Your task to perform on an android device: Show me popular videos on Youtube Image 0: 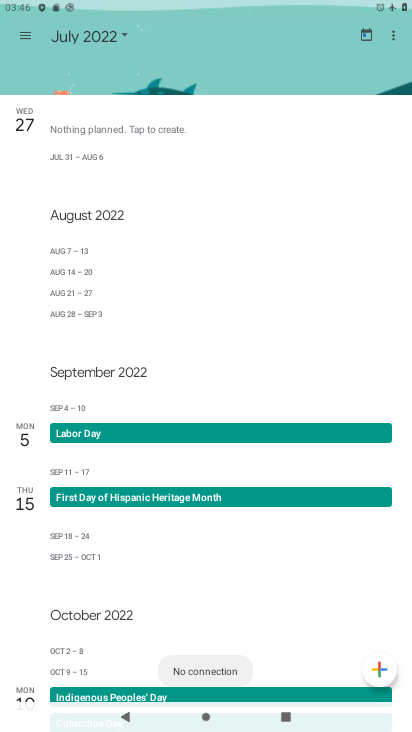
Step 0: drag from (244, 580) to (291, 246)
Your task to perform on an android device: Show me popular videos on Youtube Image 1: 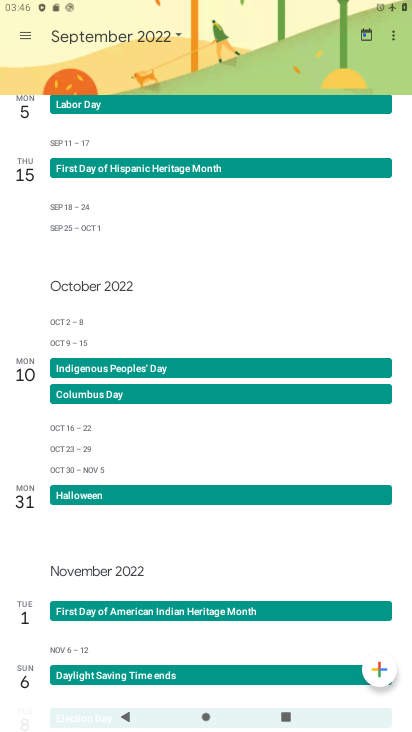
Step 1: press home button
Your task to perform on an android device: Show me popular videos on Youtube Image 2: 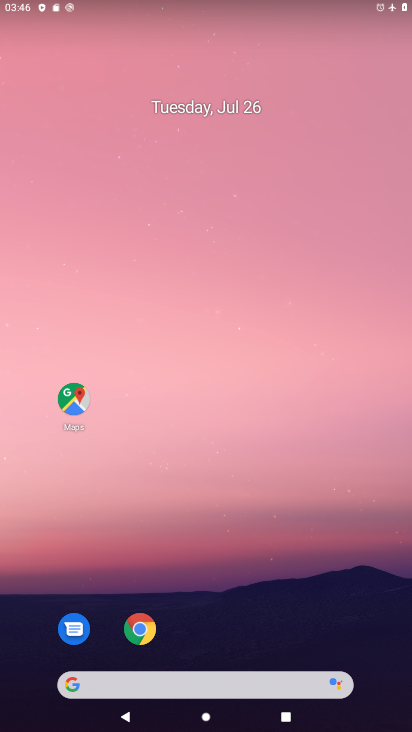
Step 2: drag from (265, 621) to (335, 178)
Your task to perform on an android device: Show me popular videos on Youtube Image 3: 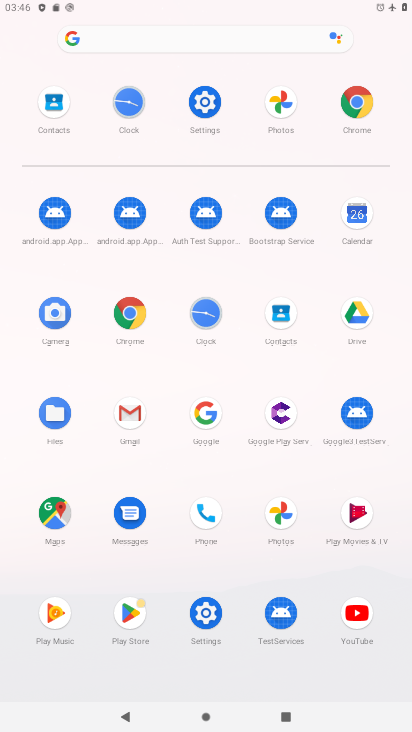
Step 3: click (353, 616)
Your task to perform on an android device: Show me popular videos on Youtube Image 4: 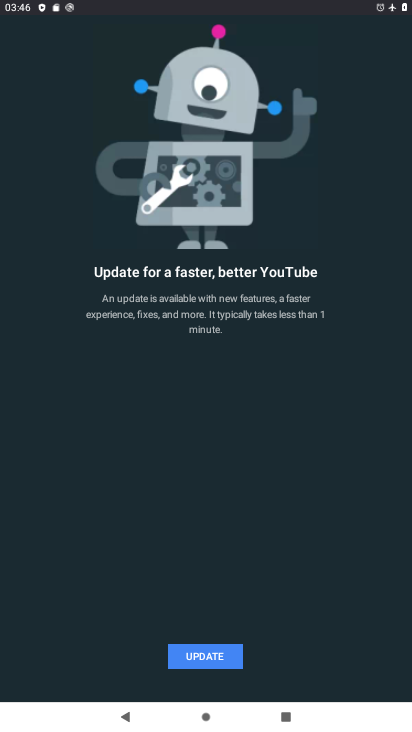
Step 4: click (211, 647)
Your task to perform on an android device: Show me popular videos on Youtube Image 5: 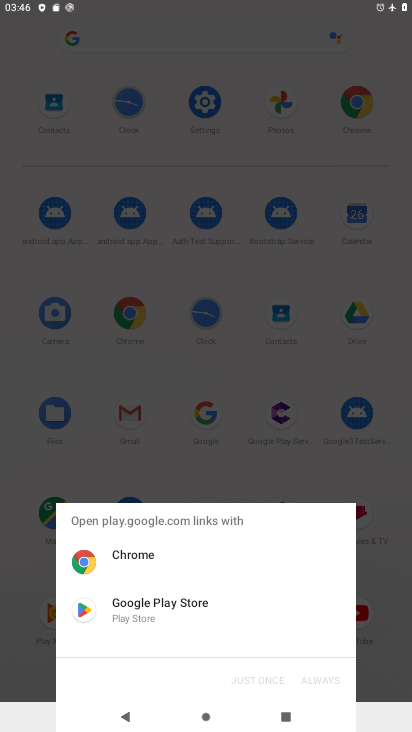
Step 5: click (175, 601)
Your task to perform on an android device: Show me popular videos on Youtube Image 6: 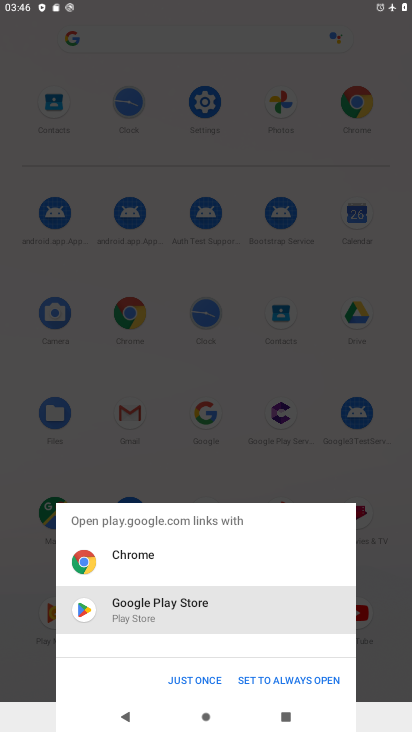
Step 6: click (183, 674)
Your task to perform on an android device: Show me popular videos on Youtube Image 7: 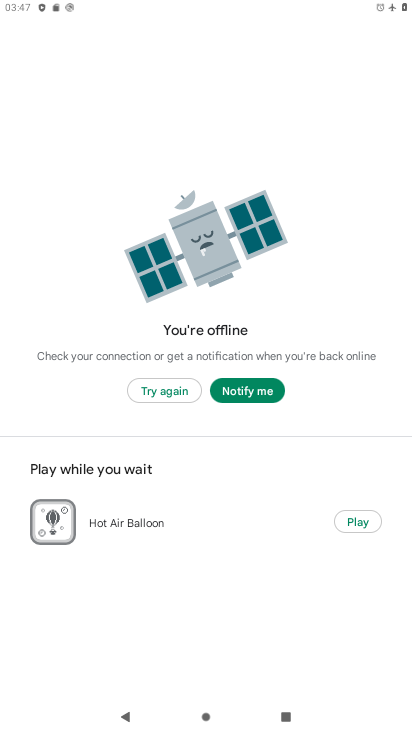
Step 7: task complete